Your task to perform on an android device: Open calendar and show me the second week of next month Image 0: 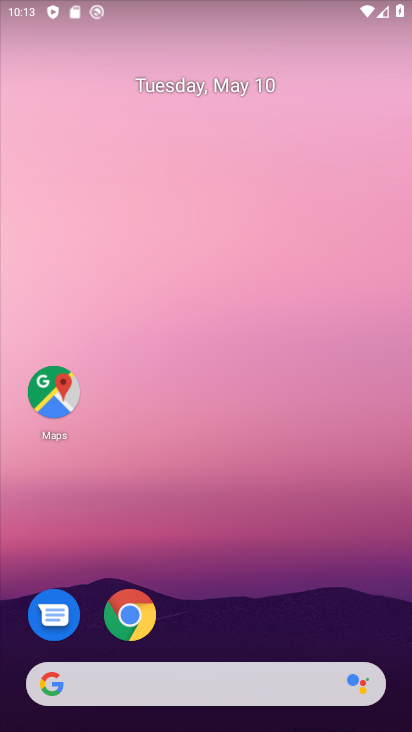
Step 0: drag from (195, 572) to (199, 73)
Your task to perform on an android device: Open calendar and show me the second week of next month Image 1: 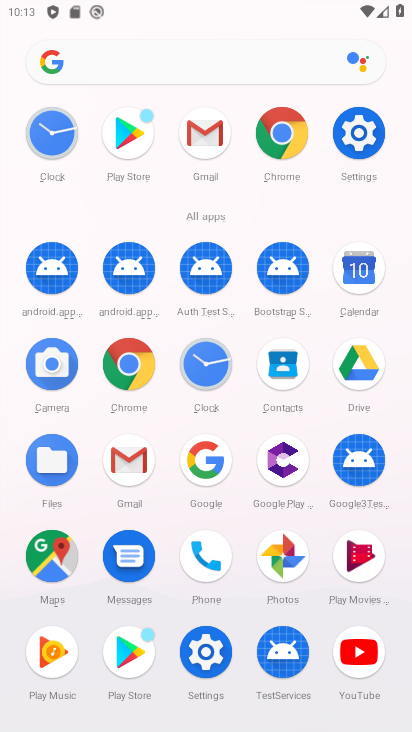
Step 1: click (360, 267)
Your task to perform on an android device: Open calendar and show me the second week of next month Image 2: 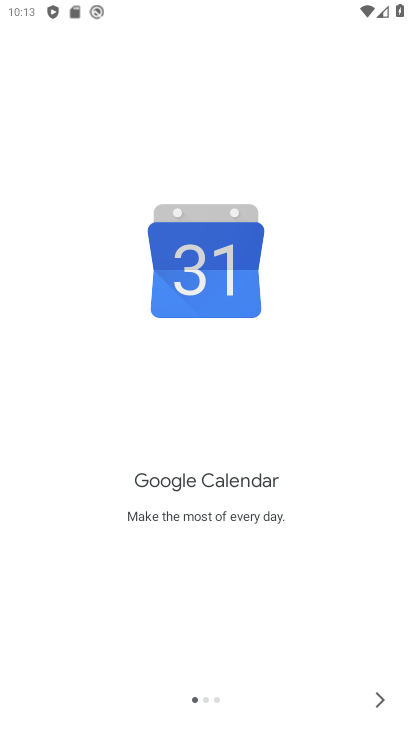
Step 2: click (381, 701)
Your task to perform on an android device: Open calendar and show me the second week of next month Image 3: 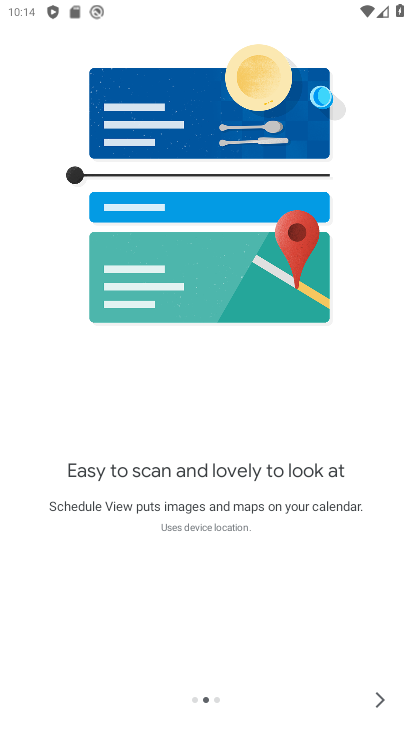
Step 3: click (381, 701)
Your task to perform on an android device: Open calendar and show me the second week of next month Image 4: 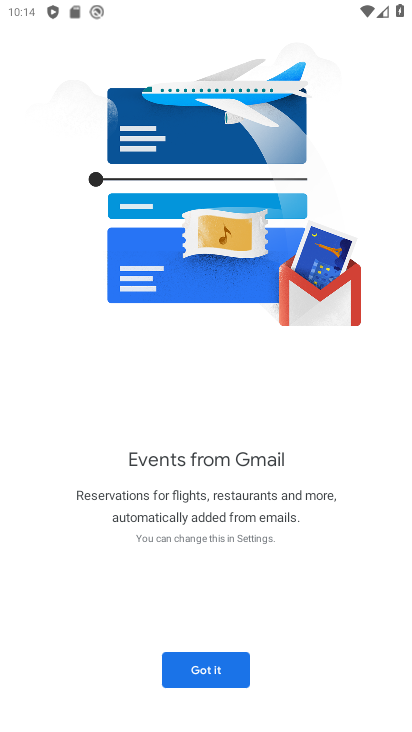
Step 4: click (210, 673)
Your task to perform on an android device: Open calendar and show me the second week of next month Image 5: 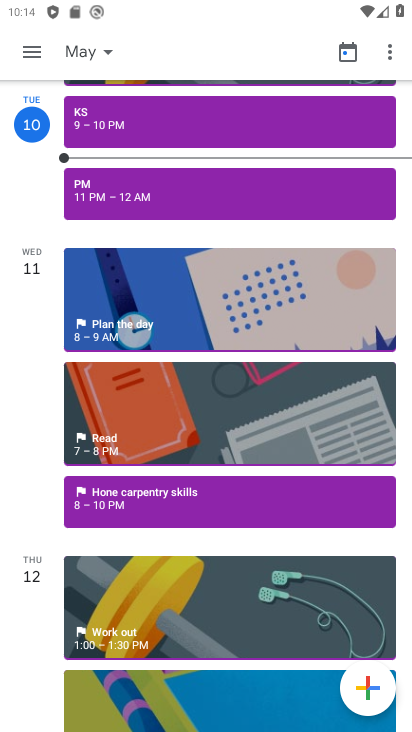
Step 5: click (105, 54)
Your task to perform on an android device: Open calendar and show me the second week of next month Image 6: 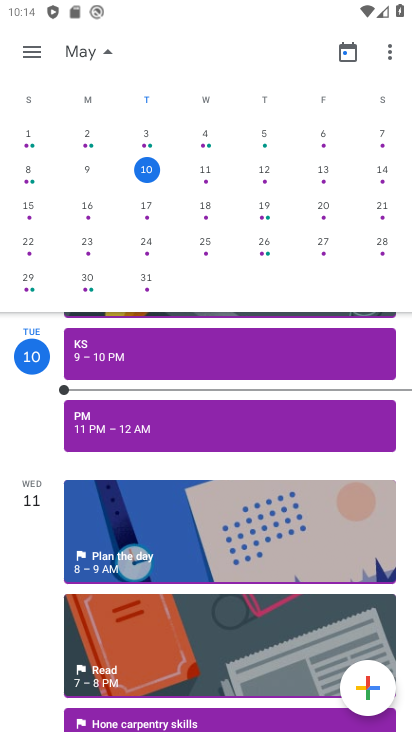
Step 6: click (89, 176)
Your task to perform on an android device: Open calendar and show me the second week of next month Image 7: 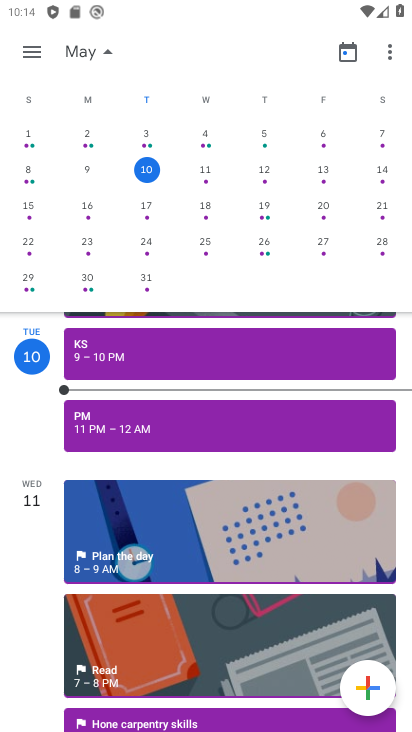
Step 7: drag from (339, 174) to (0, 204)
Your task to perform on an android device: Open calendar and show me the second week of next month Image 8: 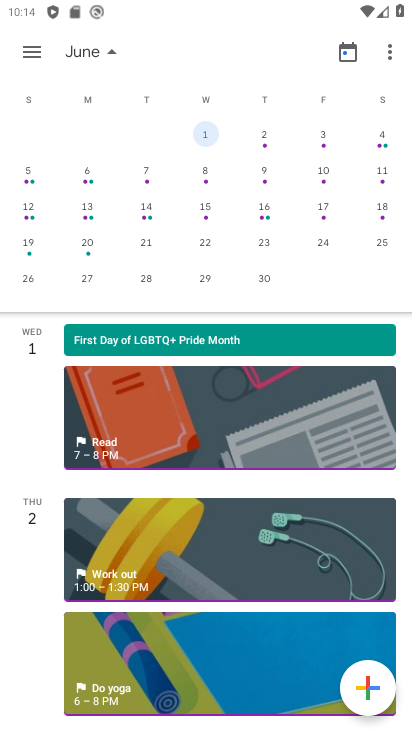
Step 8: click (87, 211)
Your task to perform on an android device: Open calendar and show me the second week of next month Image 9: 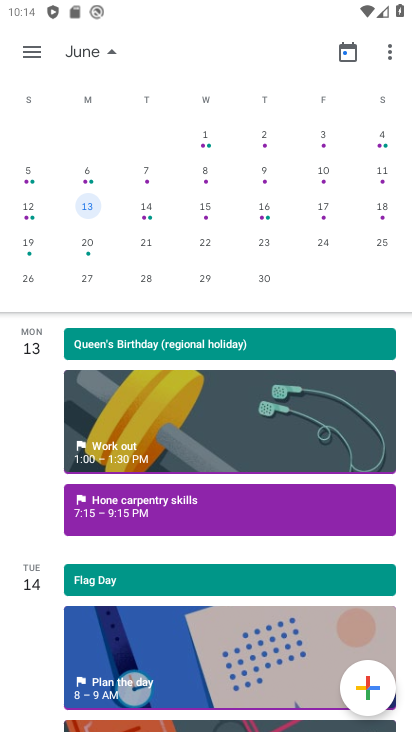
Step 9: click (33, 47)
Your task to perform on an android device: Open calendar and show me the second week of next month Image 10: 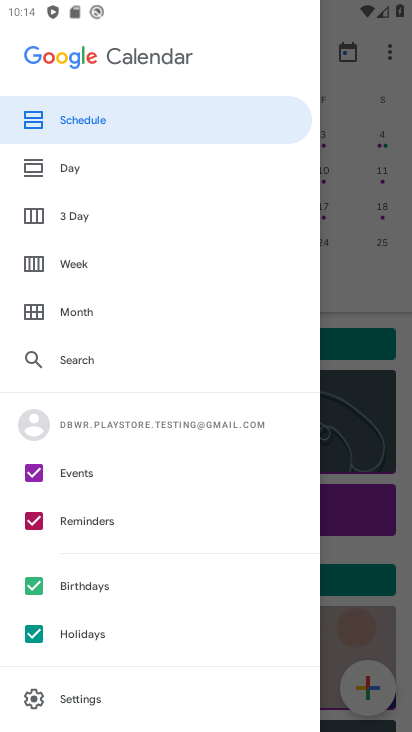
Step 10: click (86, 271)
Your task to perform on an android device: Open calendar and show me the second week of next month Image 11: 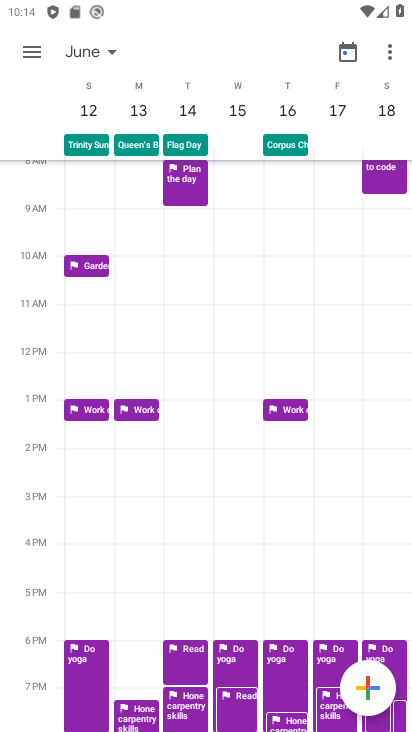
Step 11: task complete